Your task to perform on an android device: toggle improve location accuracy Image 0: 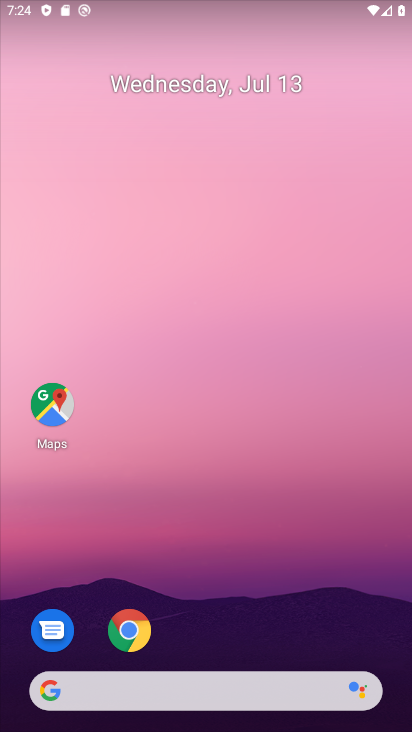
Step 0: drag from (351, 611) to (370, 94)
Your task to perform on an android device: toggle improve location accuracy Image 1: 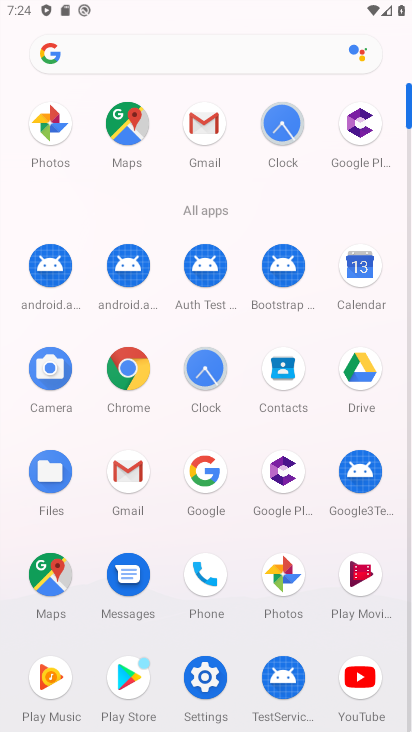
Step 1: click (209, 674)
Your task to perform on an android device: toggle improve location accuracy Image 2: 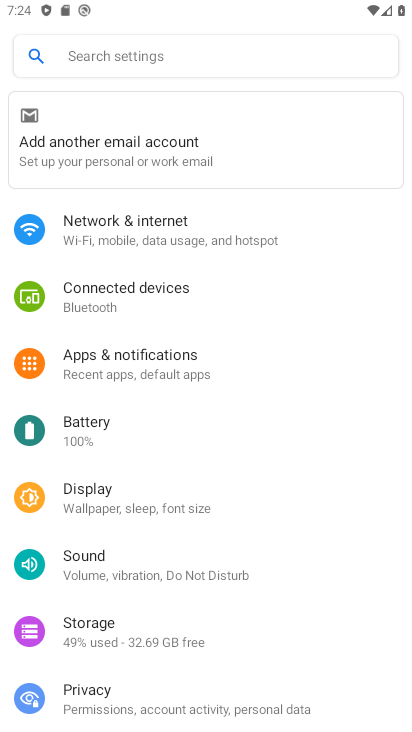
Step 2: drag from (349, 460) to (354, 373)
Your task to perform on an android device: toggle improve location accuracy Image 3: 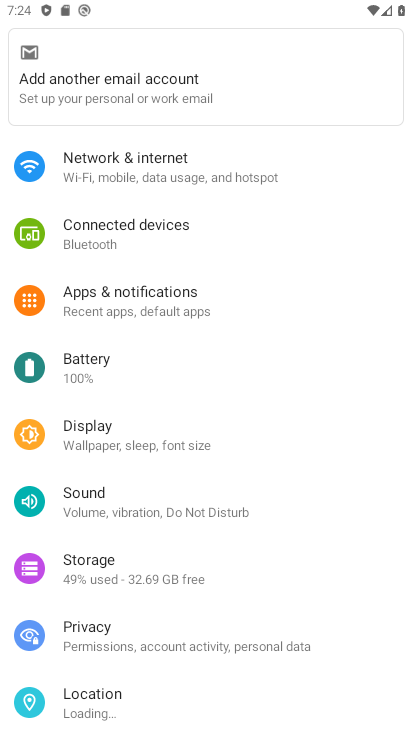
Step 3: drag from (352, 448) to (353, 372)
Your task to perform on an android device: toggle improve location accuracy Image 4: 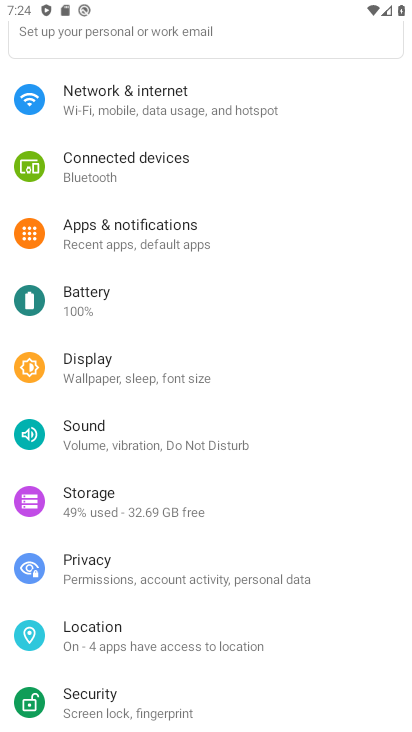
Step 4: drag from (361, 468) to (362, 383)
Your task to perform on an android device: toggle improve location accuracy Image 5: 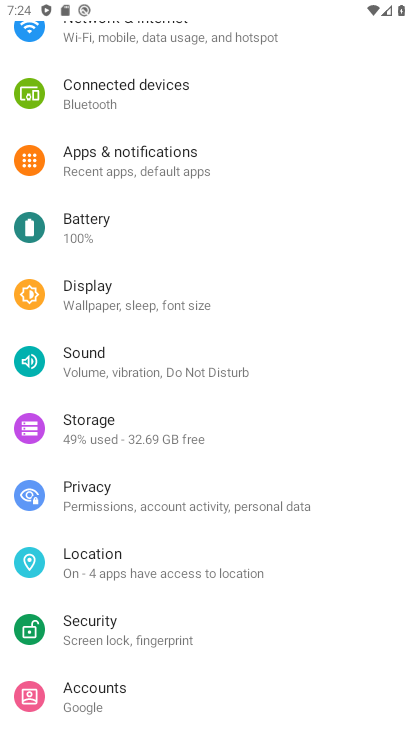
Step 5: drag from (344, 487) to (337, 383)
Your task to perform on an android device: toggle improve location accuracy Image 6: 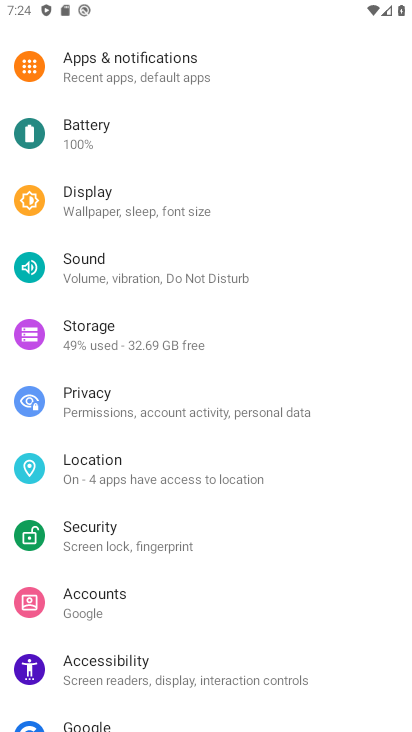
Step 6: drag from (349, 509) to (354, 415)
Your task to perform on an android device: toggle improve location accuracy Image 7: 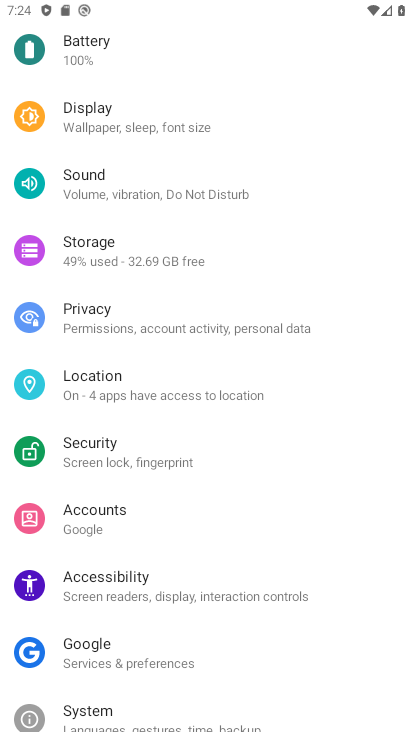
Step 7: drag from (343, 491) to (343, 384)
Your task to perform on an android device: toggle improve location accuracy Image 8: 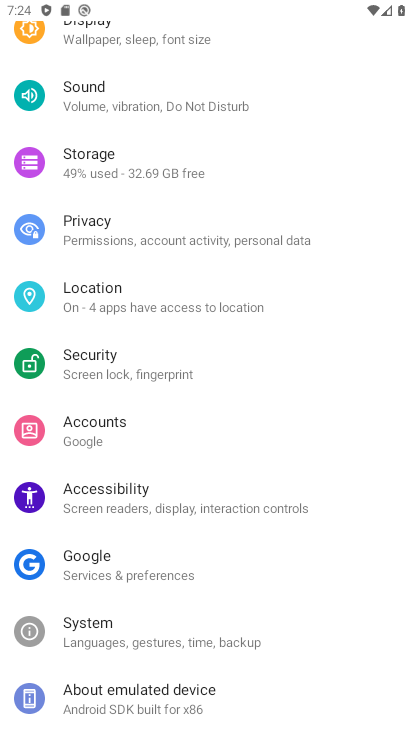
Step 8: drag from (343, 499) to (337, 381)
Your task to perform on an android device: toggle improve location accuracy Image 9: 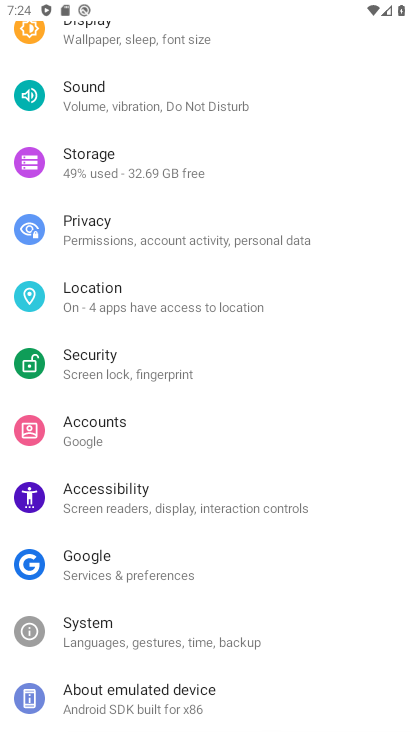
Step 9: click (283, 293)
Your task to perform on an android device: toggle improve location accuracy Image 10: 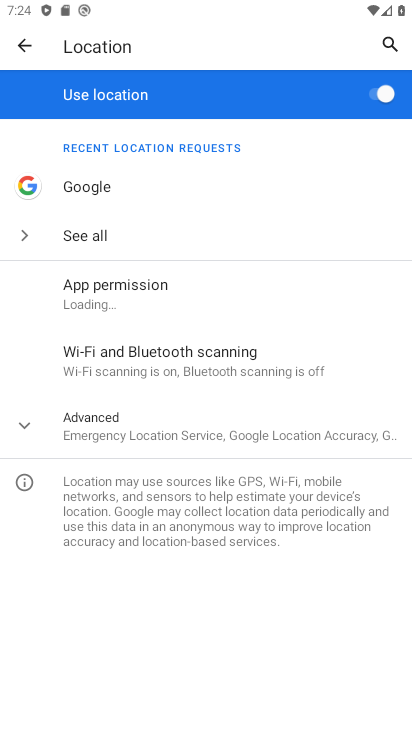
Step 10: click (289, 430)
Your task to perform on an android device: toggle improve location accuracy Image 11: 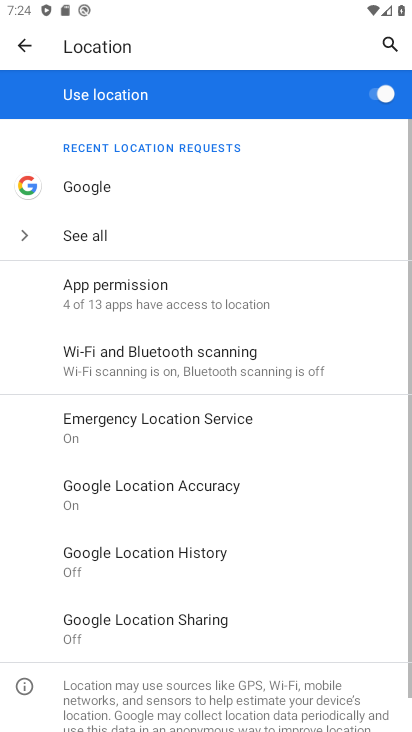
Step 11: drag from (321, 494) to (321, 392)
Your task to perform on an android device: toggle improve location accuracy Image 12: 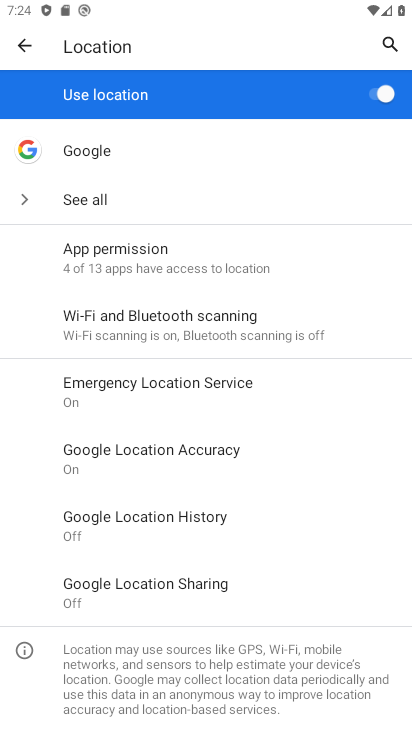
Step 12: click (288, 455)
Your task to perform on an android device: toggle improve location accuracy Image 13: 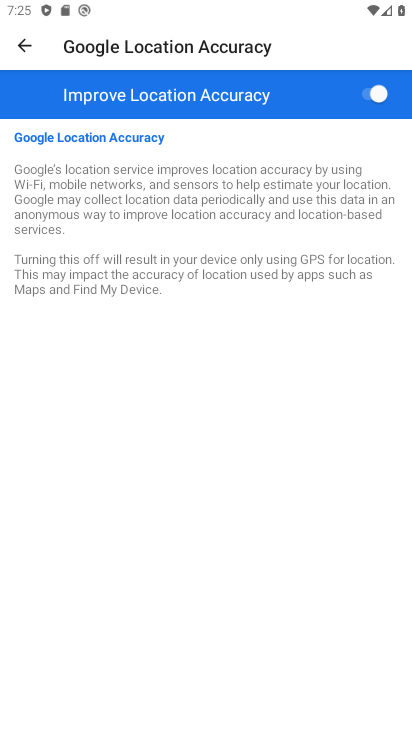
Step 13: click (374, 93)
Your task to perform on an android device: toggle improve location accuracy Image 14: 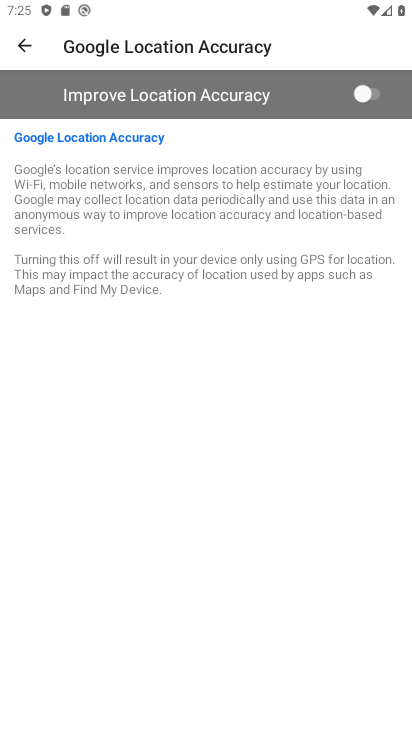
Step 14: task complete